Your task to perform on an android device: Go to Yahoo.com Image 0: 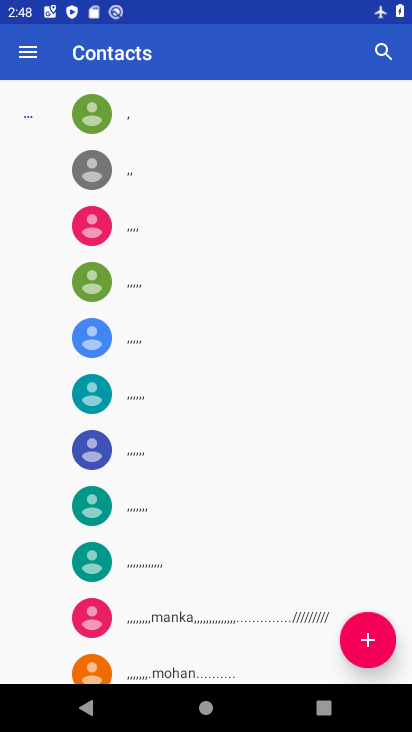
Step 0: press home button
Your task to perform on an android device: Go to Yahoo.com Image 1: 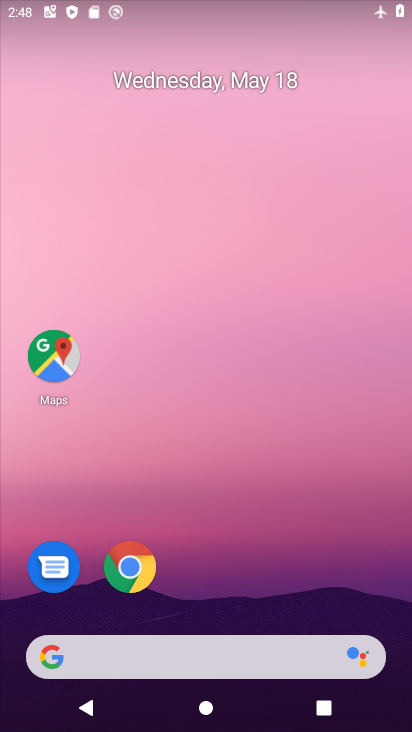
Step 1: click (141, 562)
Your task to perform on an android device: Go to Yahoo.com Image 2: 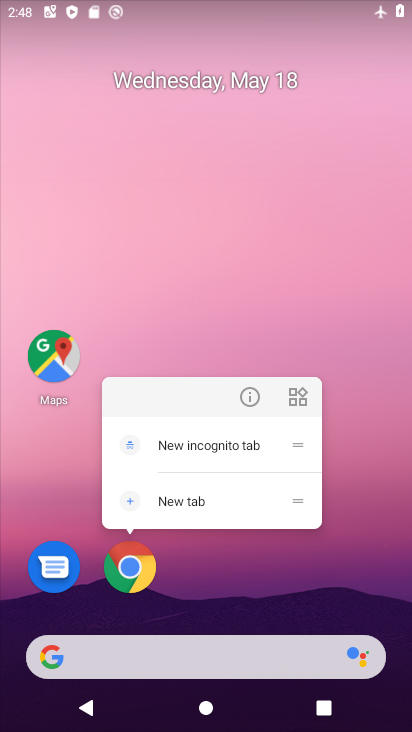
Step 2: click (132, 572)
Your task to perform on an android device: Go to Yahoo.com Image 3: 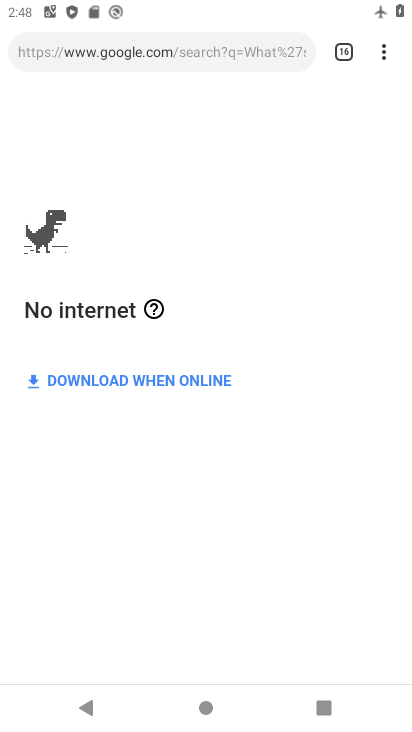
Step 3: click (379, 52)
Your task to perform on an android device: Go to Yahoo.com Image 4: 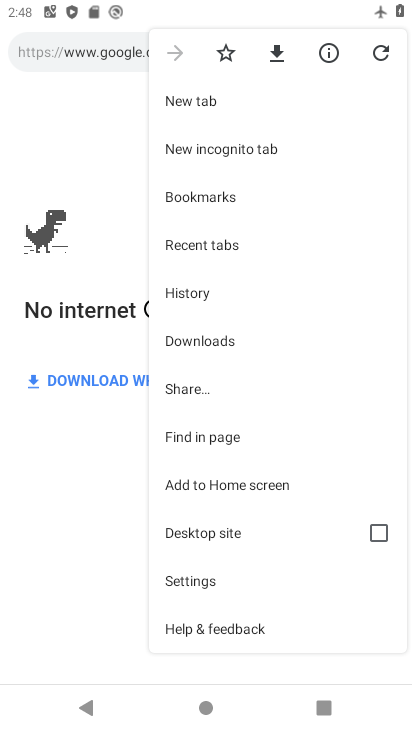
Step 4: click (210, 100)
Your task to perform on an android device: Go to Yahoo.com Image 5: 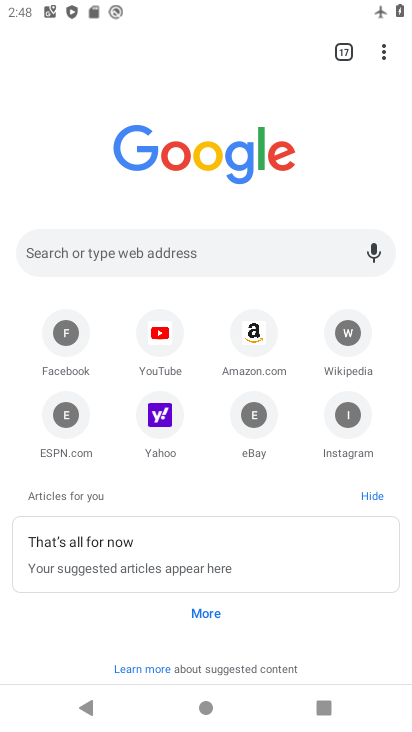
Step 5: click (162, 435)
Your task to perform on an android device: Go to Yahoo.com Image 6: 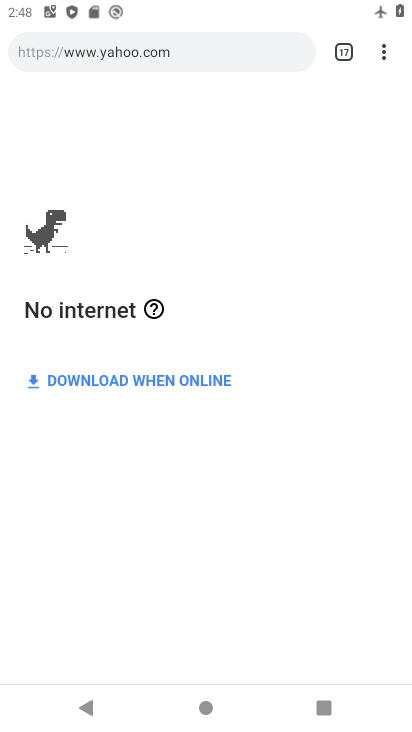
Step 6: task complete